Your task to perform on an android device: Do I have any events this weekend? Image 0: 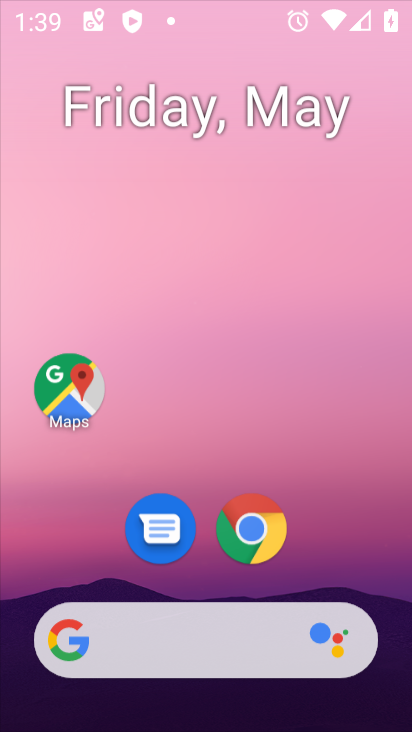
Step 0: click (261, 539)
Your task to perform on an android device: Do I have any events this weekend? Image 1: 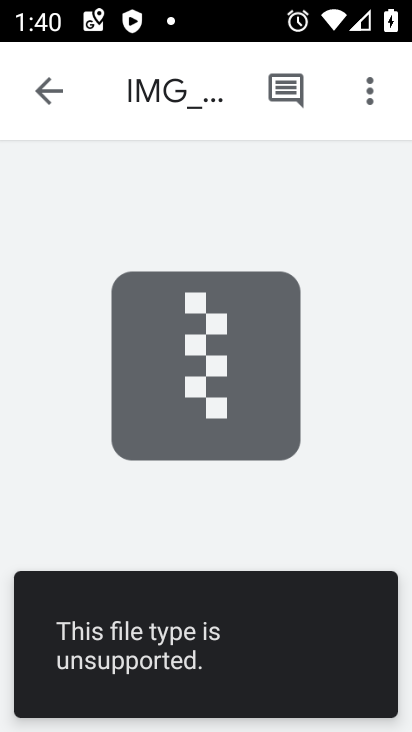
Step 1: press home button
Your task to perform on an android device: Do I have any events this weekend? Image 2: 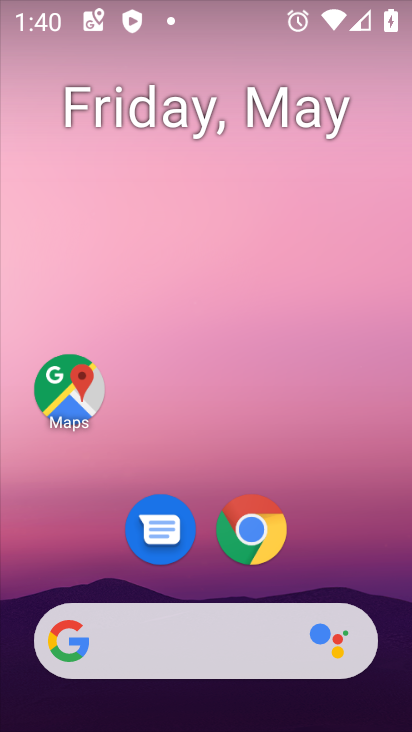
Step 2: drag from (401, 652) to (372, 312)
Your task to perform on an android device: Do I have any events this weekend? Image 3: 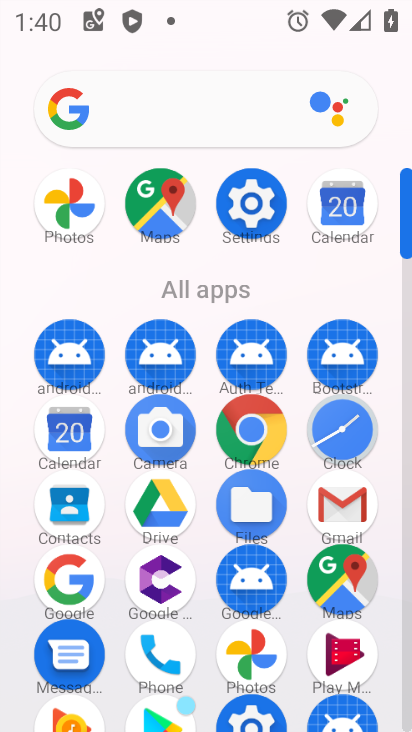
Step 3: click (72, 443)
Your task to perform on an android device: Do I have any events this weekend? Image 4: 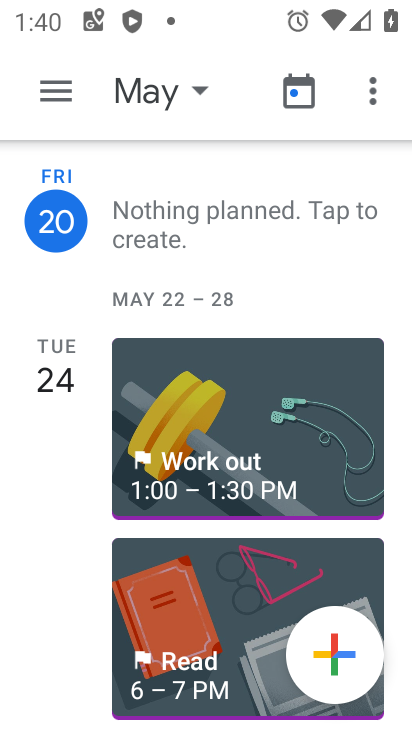
Step 4: click (192, 92)
Your task to perform on an android device: Do I have any events this weekend? Image 5: 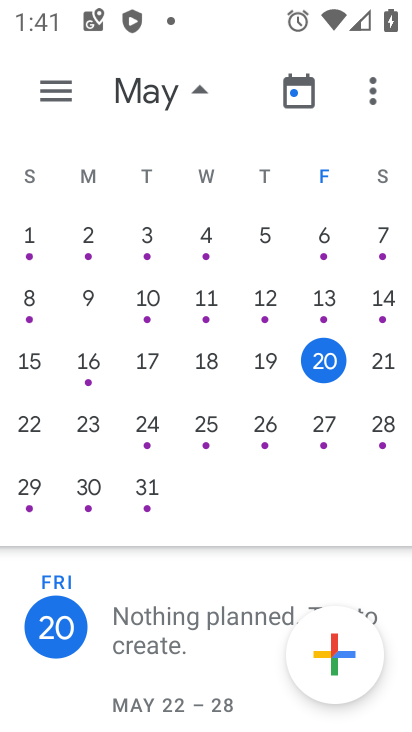
Step 5: click (64, 85)
Your task to perform on an android device: Do I have any events this weekend? Image 6: 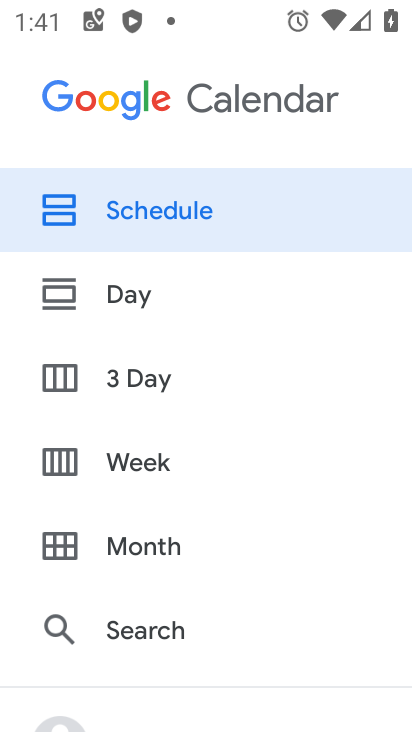
Step 6: click (130, 461)
Your task to perform on an android device: Do I have any events this weekend? Image 7: 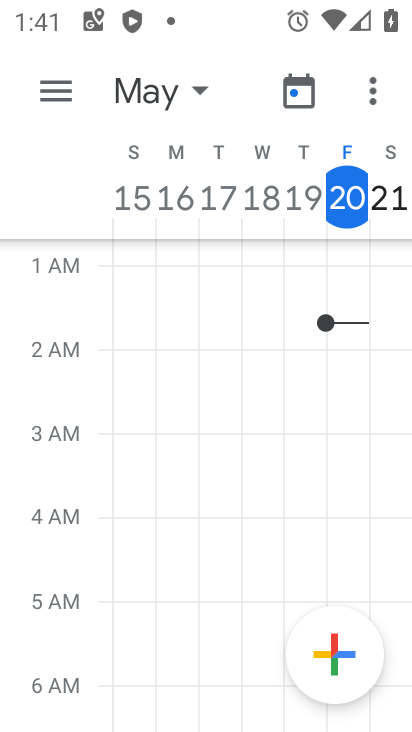
Step 7: task complete